Your task to perform on an android device: Go to battery settings Image 0: 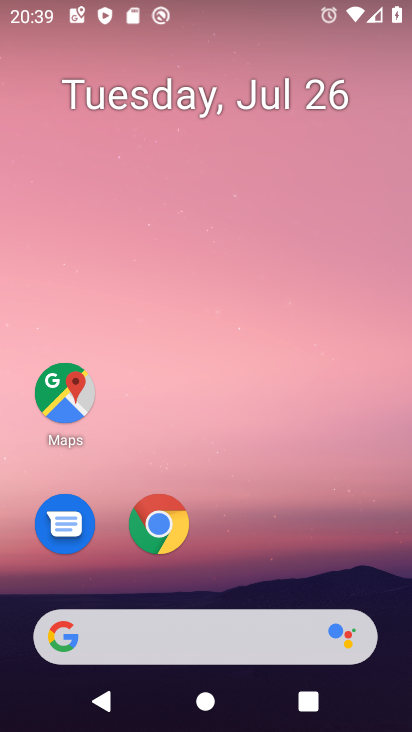
Step 0: drag from (317, 451) to (259, 79)
Your task to perform on an android device: Go to battery settings Image 1: 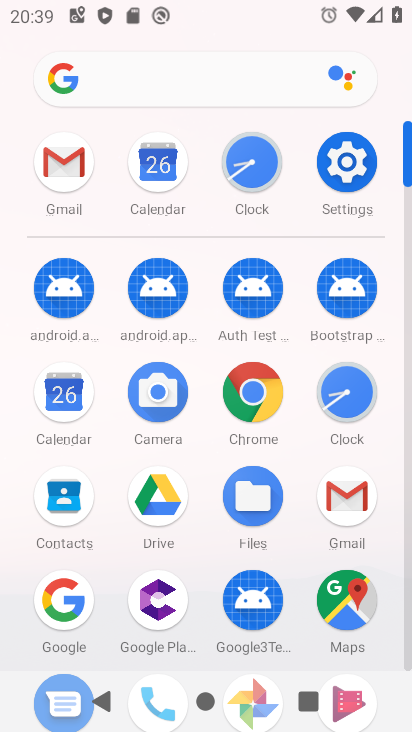
Step 1: click (344, 165)
Your task to perform on an android device: Go to battery settings Image 2: 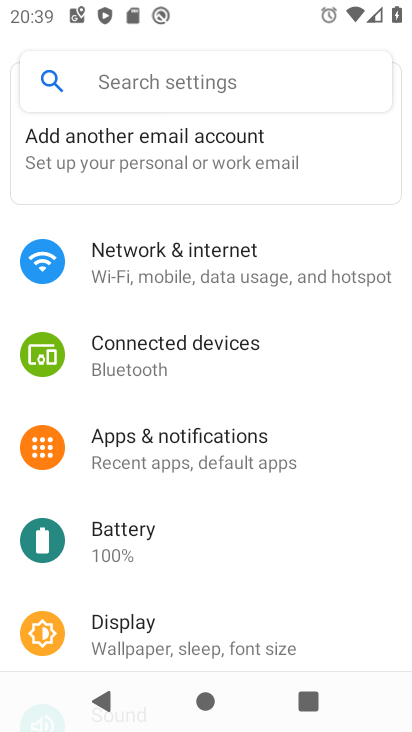
Step 2: click (155, 546)
Your task to perform on an android device: Go to battery settings Image 3: 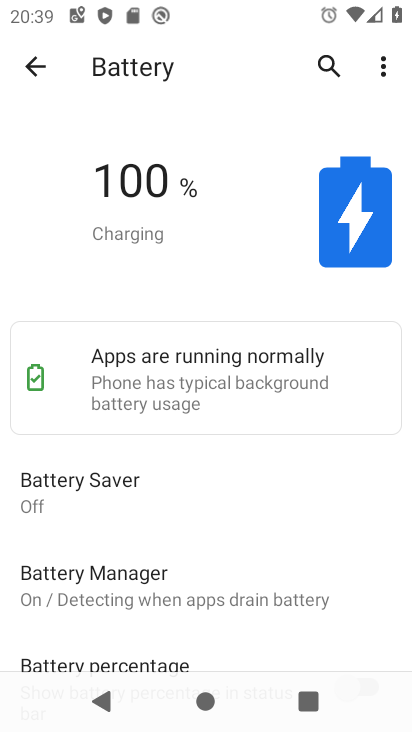
Step 3: task complete